Your task to perform on an android device: turn off improve location accuracy Image 0: 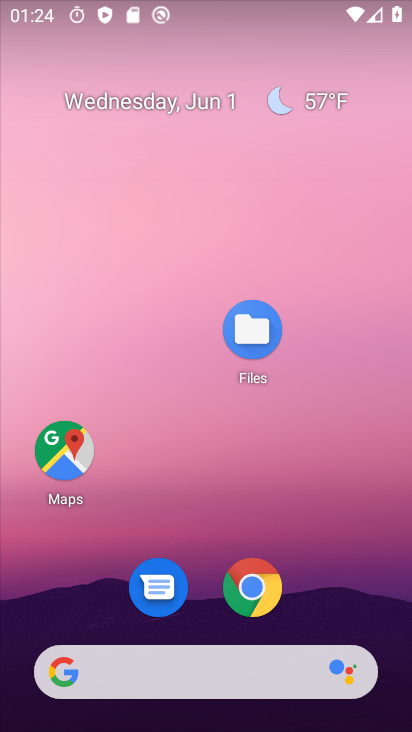
Step 0: click (281, 18)
Your task to perform on an android device: turn off improve location accuracy Image 1: 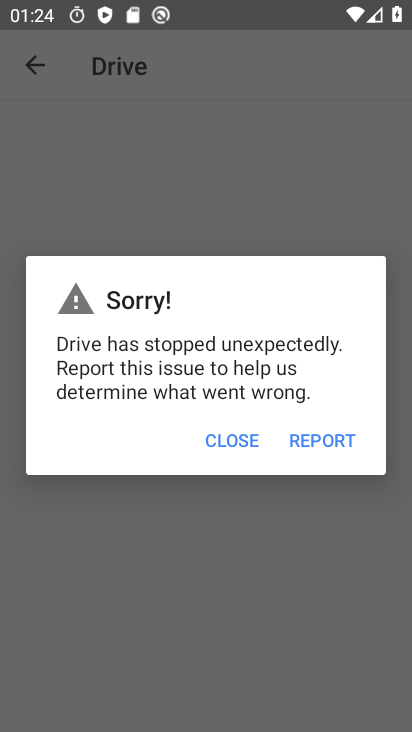
Step 1: press home button
Your task to perform on an android device: turn off improve location accuracy Image 2: 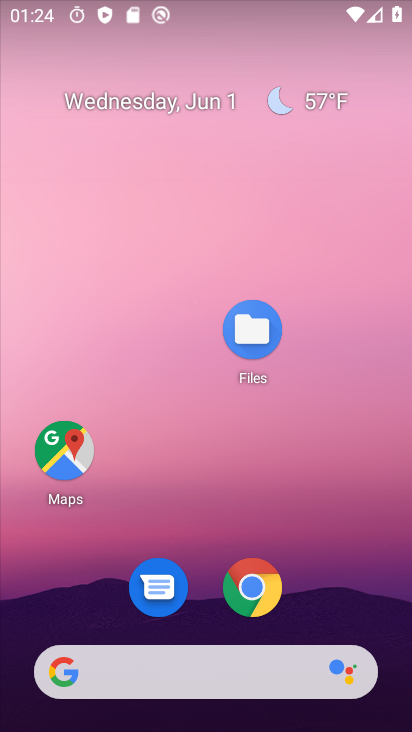
Step 2: drag from (354, 595) to (323, 239)
Your task to perform on an android device: turn off improve location accuracy Image 3: 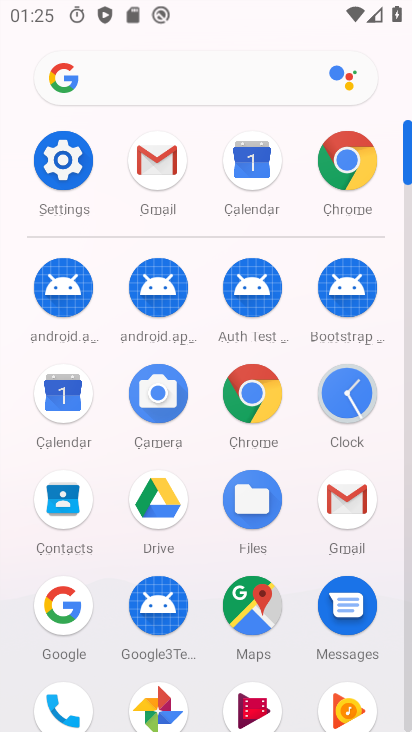
Step 3: click (66, 159)
Your task to perform on an android device: turn off improve location accuracy Image 4: 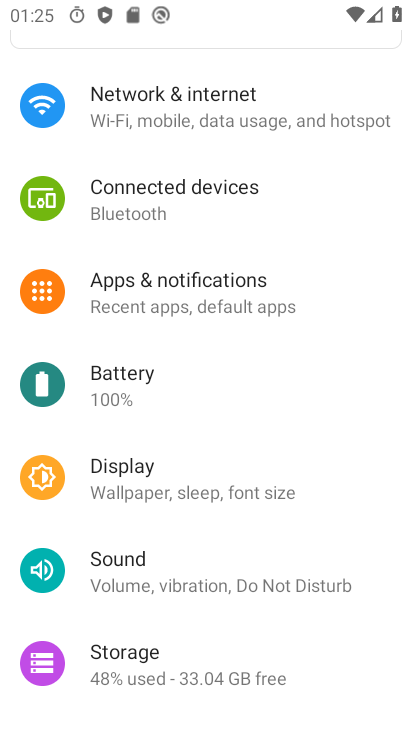
Step 4: drag from (321, 583) to (303, 365)
Your task to perform on an android device: turn off improve location accuracy Image 5: 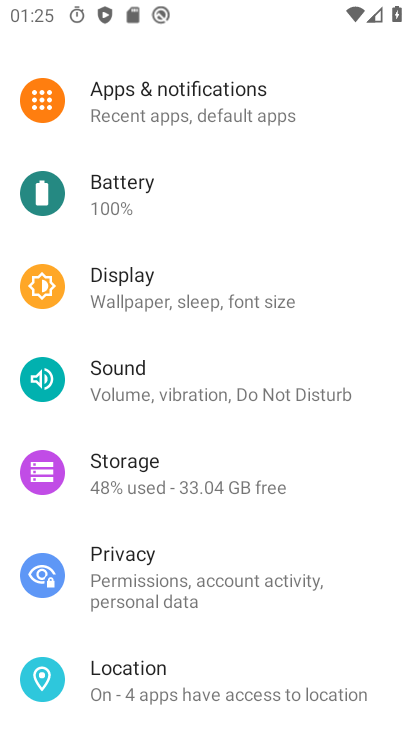
Step 5: click (119, 692)
Your task to perform on an android device: turn off improve location accuracy Image 6: 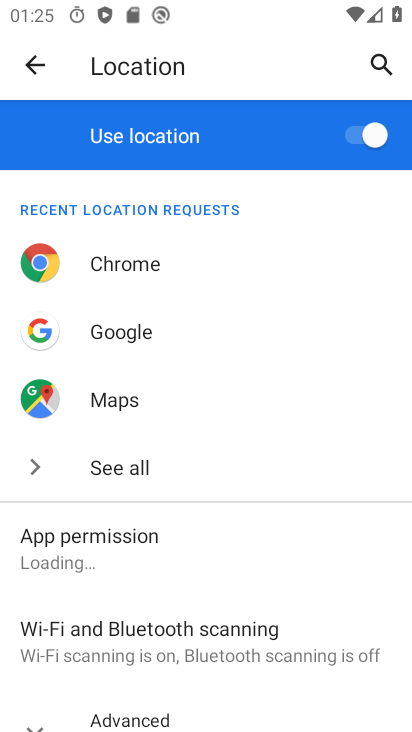
Step 6: drag from (184, 594) to (164, 383)
Your task to perform on an android device: turn off improve location accuracy Image 7: 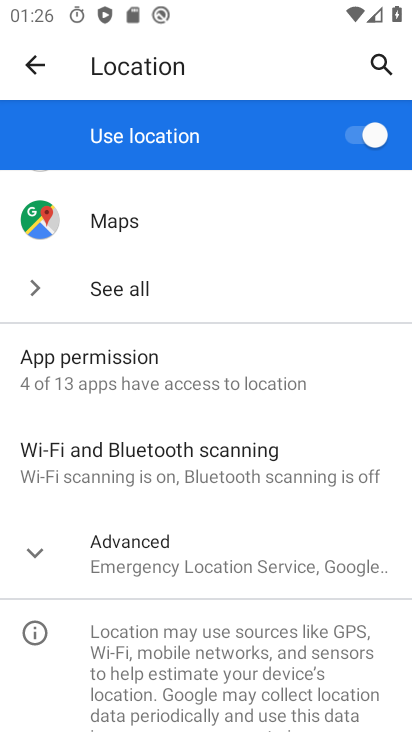
Step 7: click (182, 553)
Your task to perform on an android device: turn off improve location accuracy Image 8: 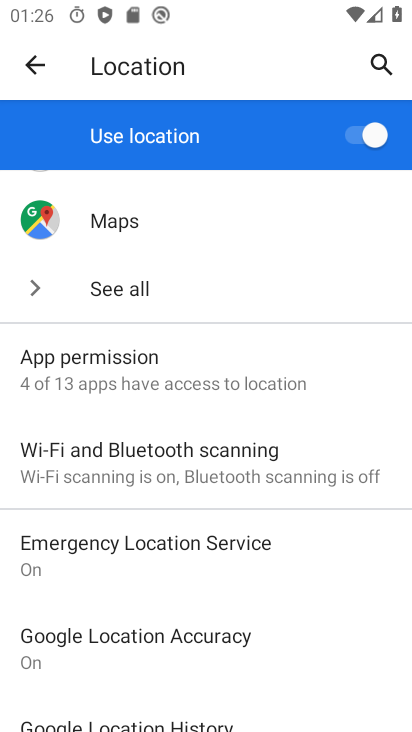
Step 8: click (158, 642)
Your task to perform on an android device: turn off improve location accuracy Image 9: 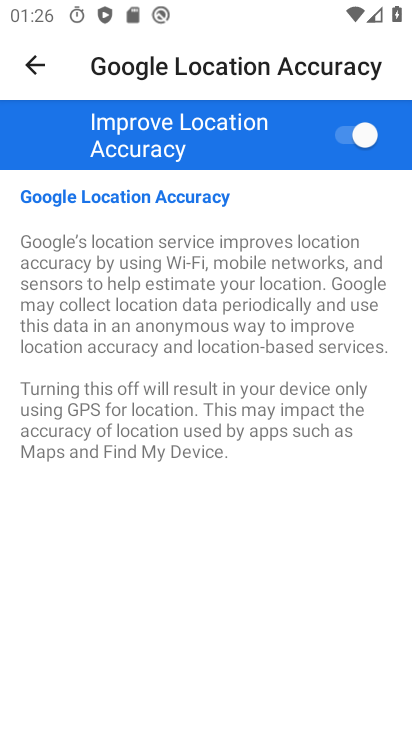
Step 9: click (273, 141)
Your task to perform on an android device: turn off improve location accuracy Image 10: 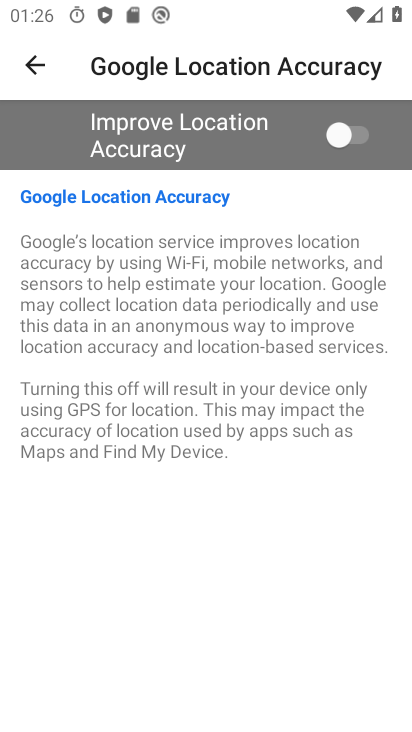
Step 10: task complete